Your task to perform on an android device: check storage Image 0: 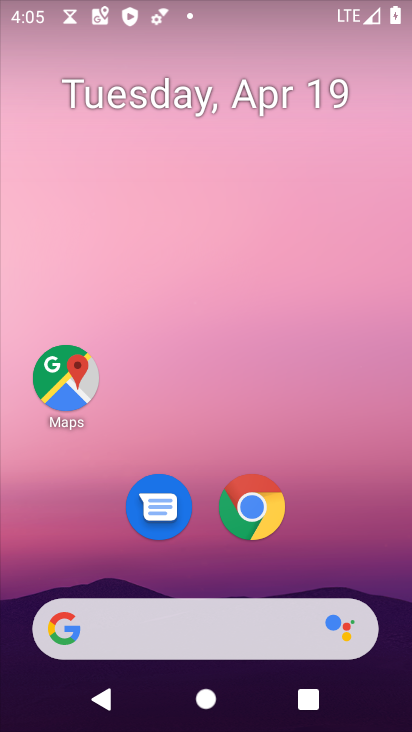
Step 0: drag from (331, 528) to (351, 46)
Your task to perform on an android device: check storage Image 1: 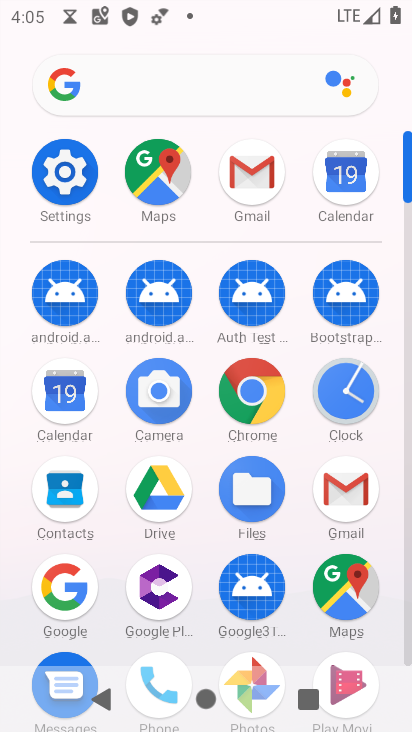
Step 1: click (70, 185)
Your task to perform on an android device: check storage Image 2: 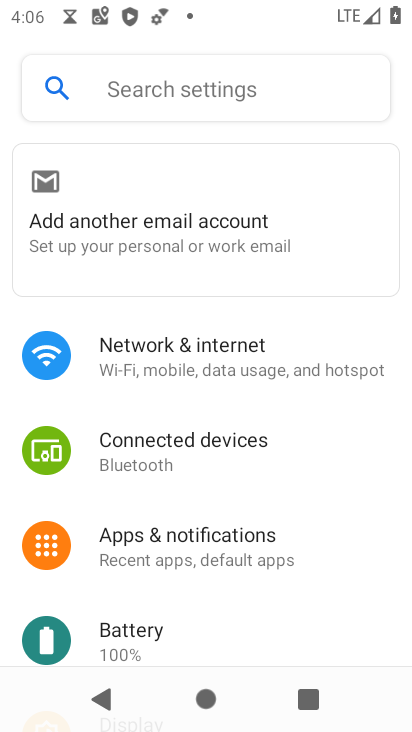
Step 2: drag from (210, 485) to (240, 342)
Your task to perform on an android device: check storage Image 3: 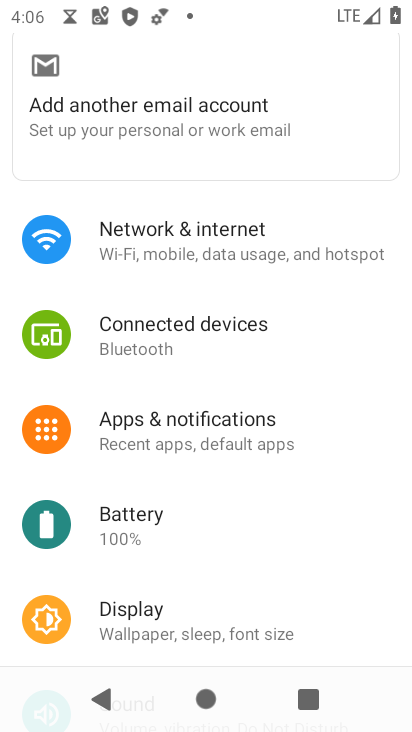
Step 3: drag from (235, 495) to (222, 385)
Your task to perform on an android device: check storage Image 4: 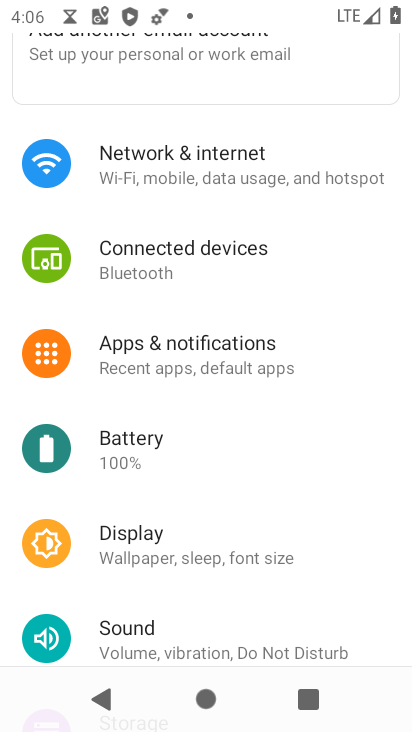
Step 4: drag from (230, 542) to (232, 416)
Your task to perform on an android device: check storage Image 5: 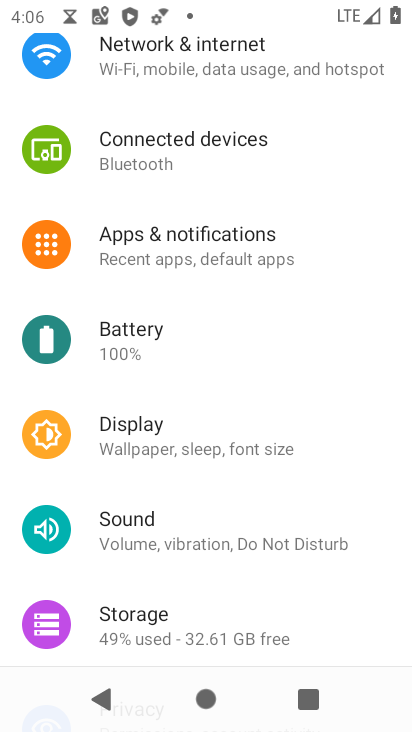
Step 5: drag from (228, 494) to (236, 375)
Your task to perform on an android device: check storage Image 6: 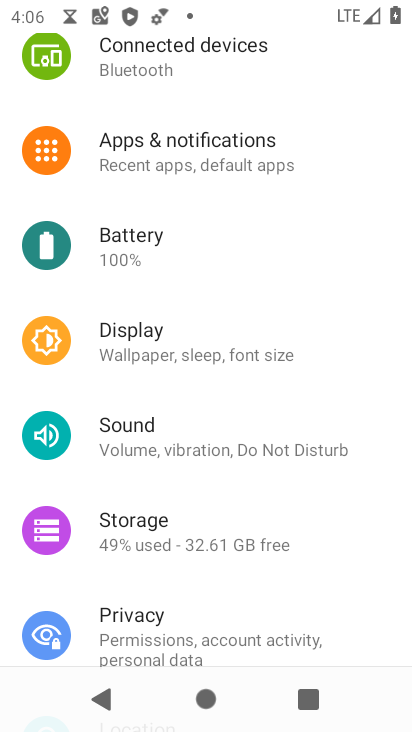
Step 6: drag from (231, 523) to (249, 410)
Your task to perform on an android device: check storage Image 7: 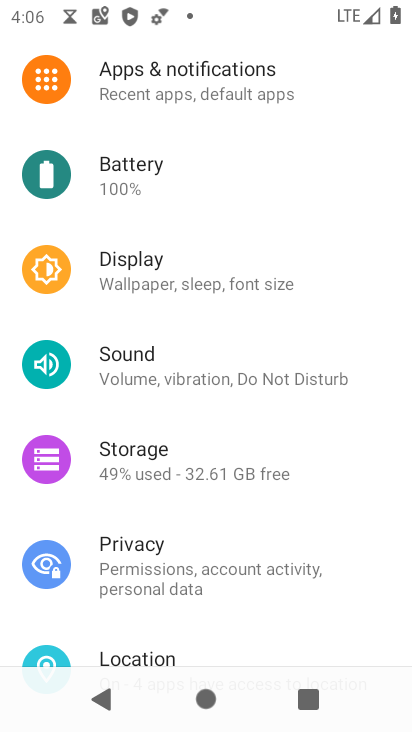
Step 7: click (211, 460)
Your task to perform on an android device: check storage Image 8: 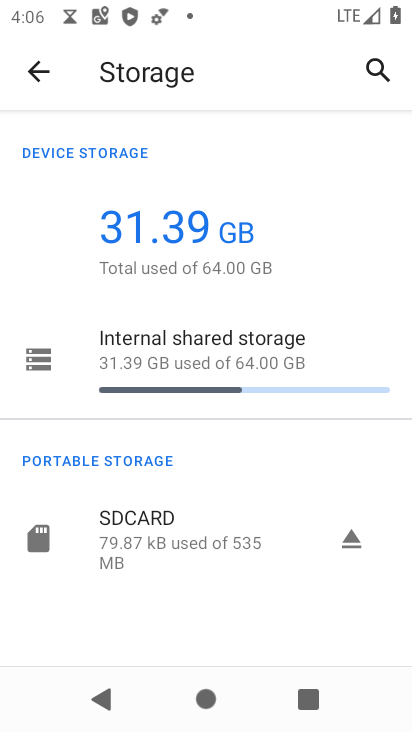
Step 8: task complete